Your task to perform on an android device: Go to calendar. Show me events next week Image 0: 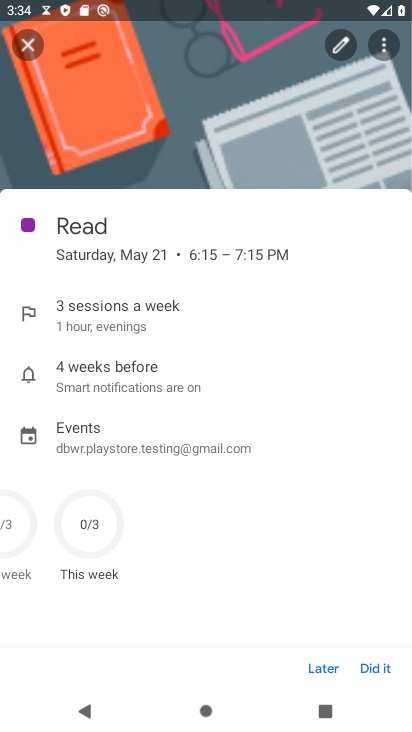
Step 0: press home button
Your task to perform on an android device: Go to calendar. Show me events next week Image 1: 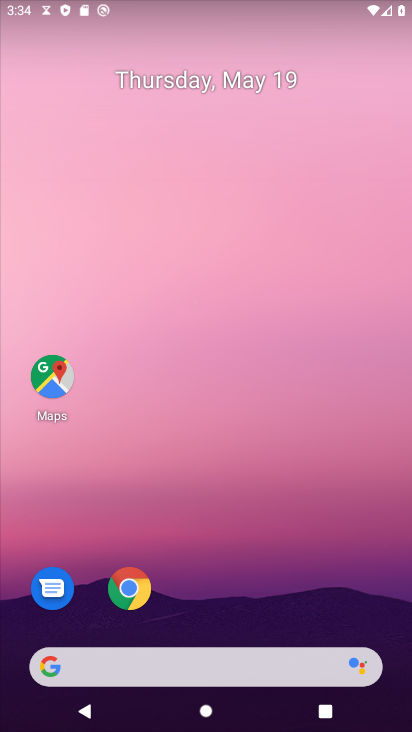
Step 1: drag from (178, 617) to (203, 311)
Your task to perform on an android device: Go to calendar. Show me events next week Image 2: 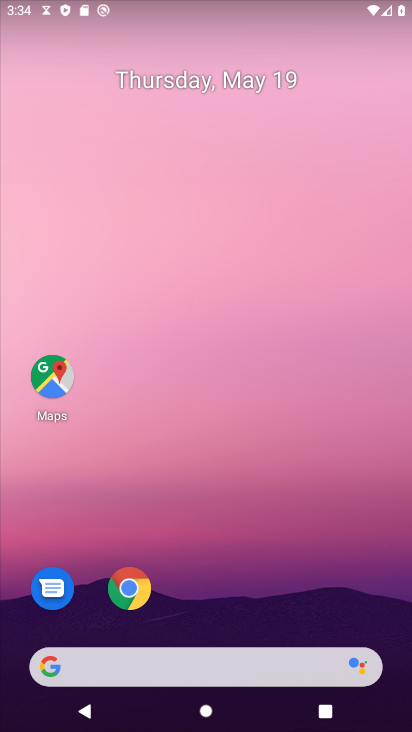
Step 2: drag from (200, 595) to (276, 16)
Your task to perform on an android device: Go to calendar. Show me events next week Image 3: 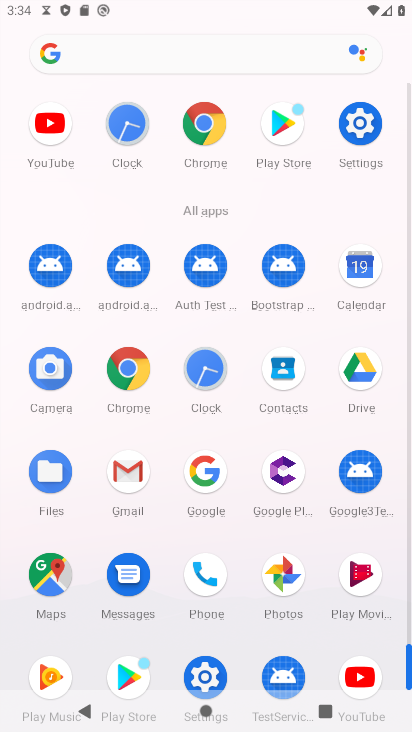
Step 3: click (363, 278)
Your task to perform on an android device: Go to calendar. Show me events next week Image 4: 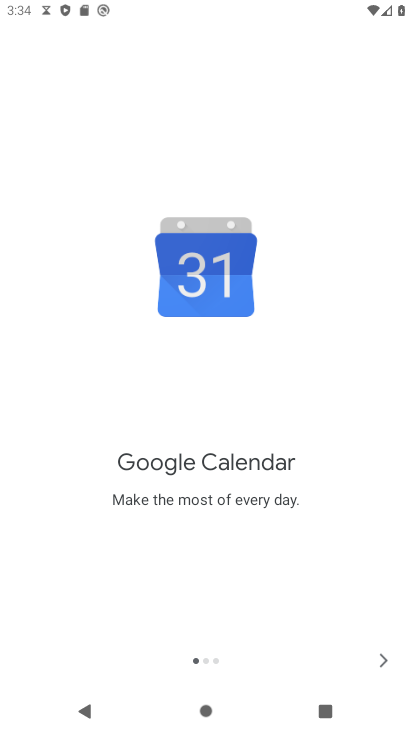
Step 4: click (385, 661)
Your task to perform on an android device: Go to calendar. Show me events next week Image 5: 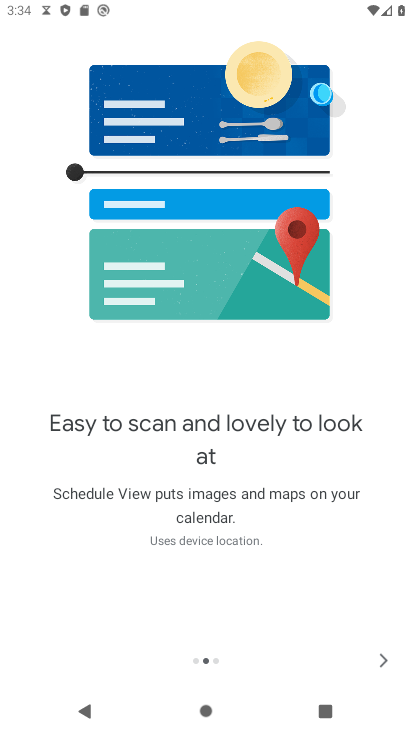
Step 5: click (384, 662)
Your task to perform on an android device: Go to calendar. Show me events next week Image 6: 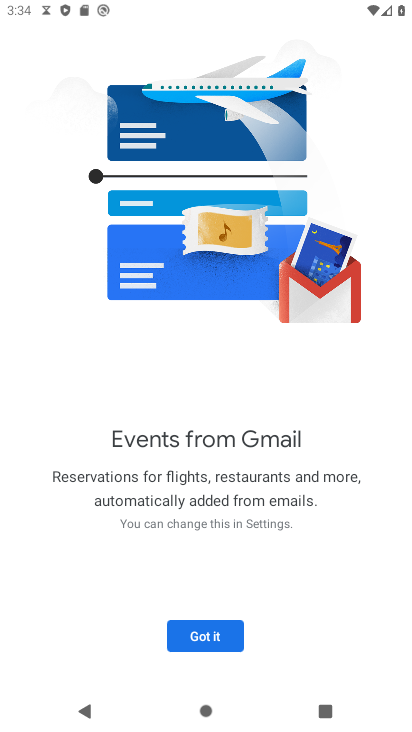
Step 6: click (384, 662)
Your task to perform on an android device: Go to calendar. Show me events next week Image 7: 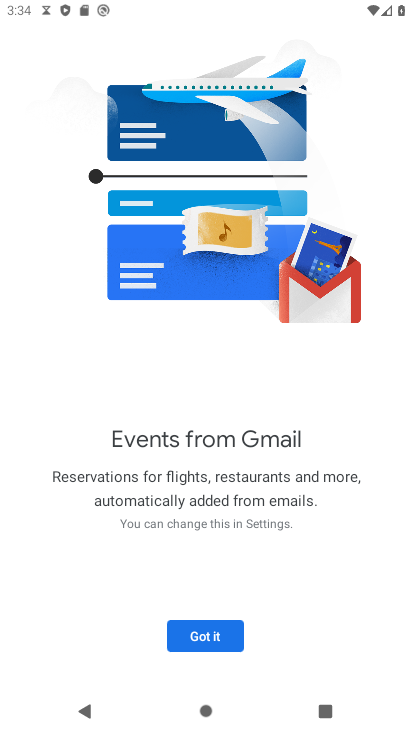
Step 7: click (210, 634)
Your task to perform on an android device: Go to calendar. Show me events next week Image 8: 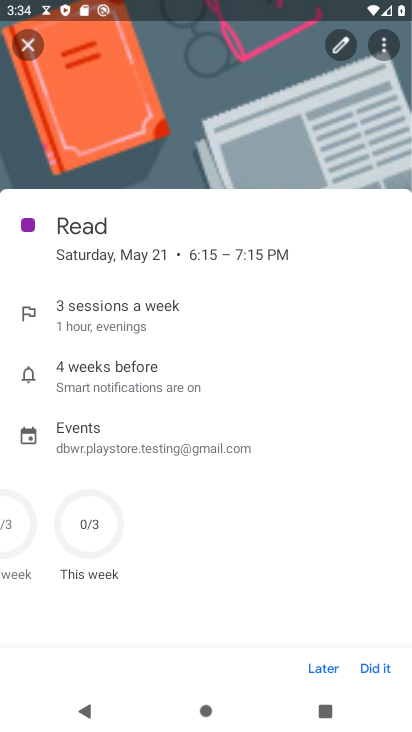
Step 8: click (310, 660)
Your task to perform on an android device: Go to calendar. Show me events next week Image 9: 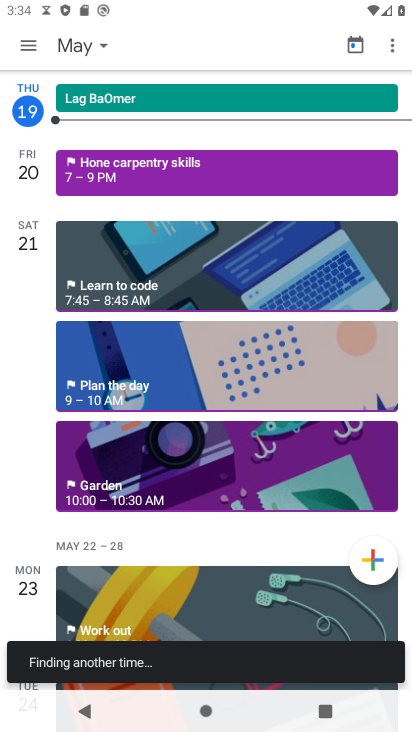
Step 9: click (30, 43)
Your task to perform on an android device: Go to calendar. Show me events next week Image 10: 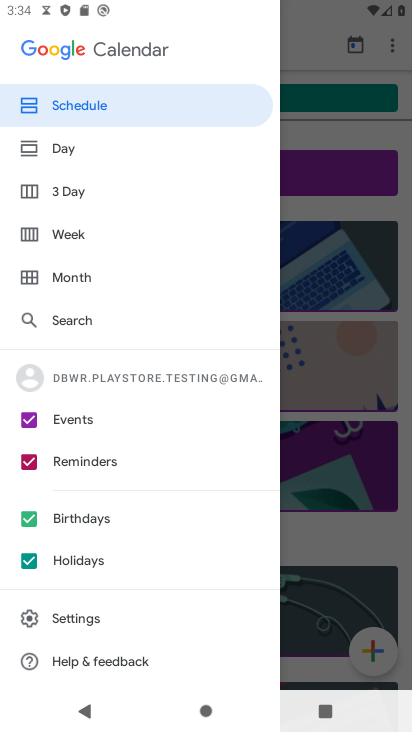
Step 10: click (28, 468)
Your task to perform on an android device: Go to calendar. Show me events next week Image 11: 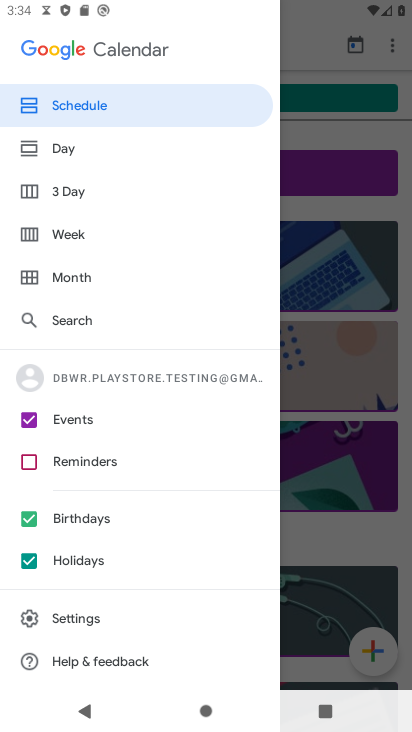
Step 11: click (42, 519)
Your task to perform on an android device: Go to calendar. Show me events next week Image 12: 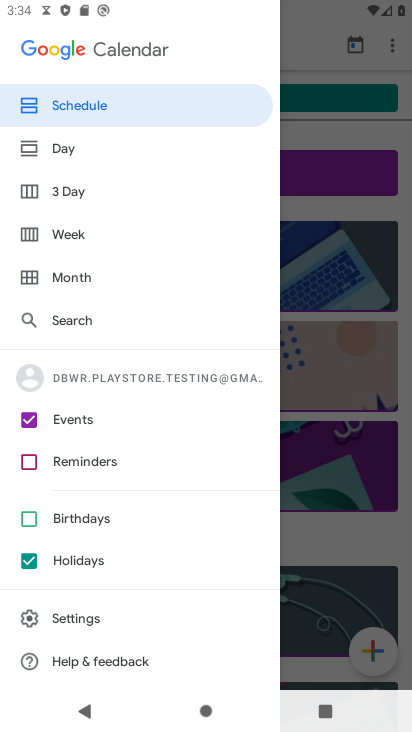
Step 12: click (44, 572)
Your task to perform on an android device: Go to calendar. Show me events next week Image 13: 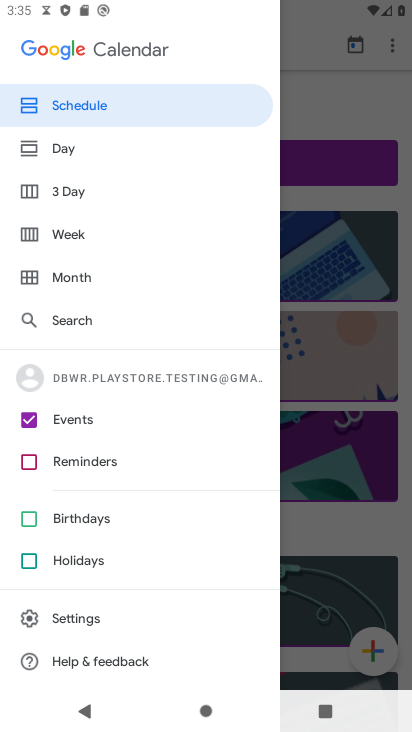
Step 13: click (77, 236)
Your task to perform on an android device: Go to calendar. Show me events next week Image 14: 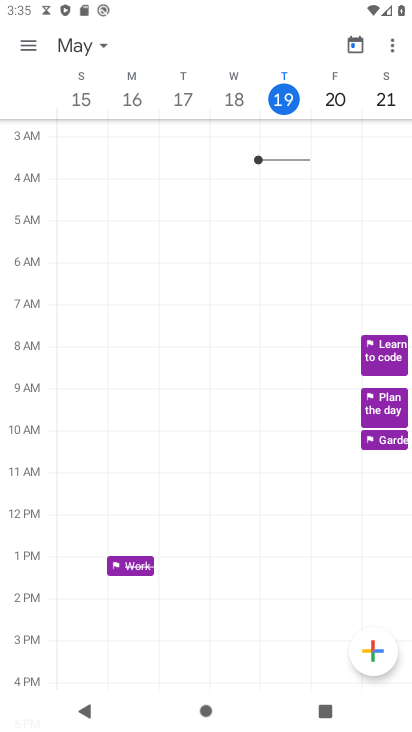
Step 14: task complete